Your task to perform on an android device: Go to accessibility settings Image 0: 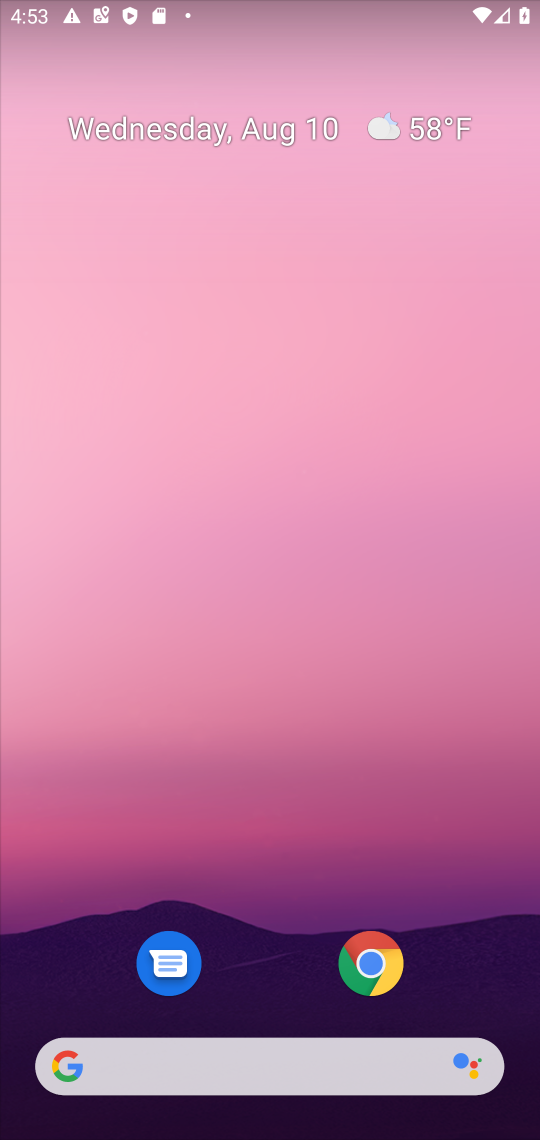
Step 0: drag from (279, 939) to (400, 168)
Your task to perform on an android device: Go to accessibility settings Image 1: 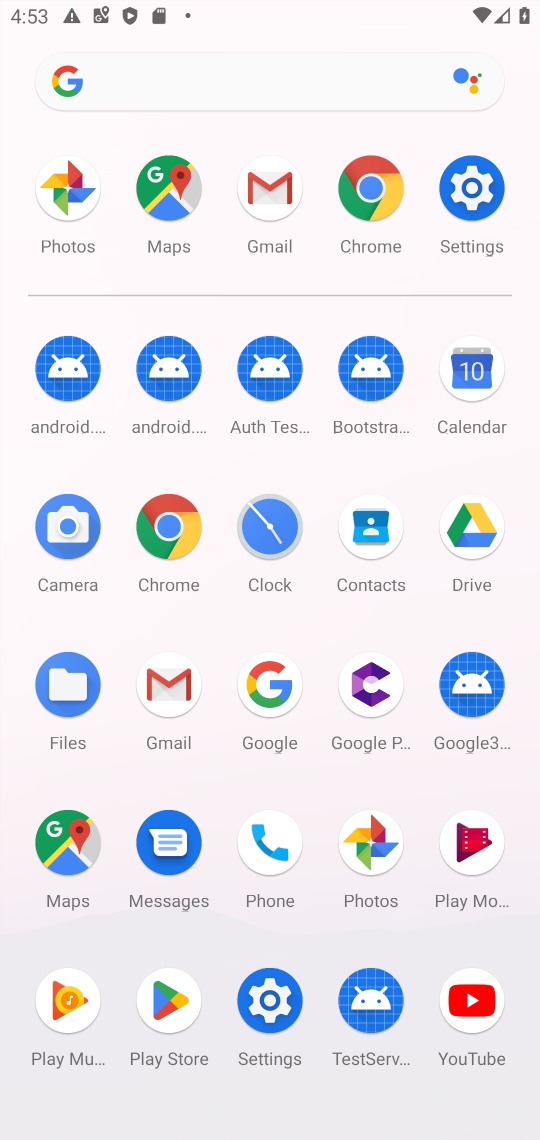
Step 1: click (248, 984)
Your task to perform on an android device: Go to accessibility settings Image 2: 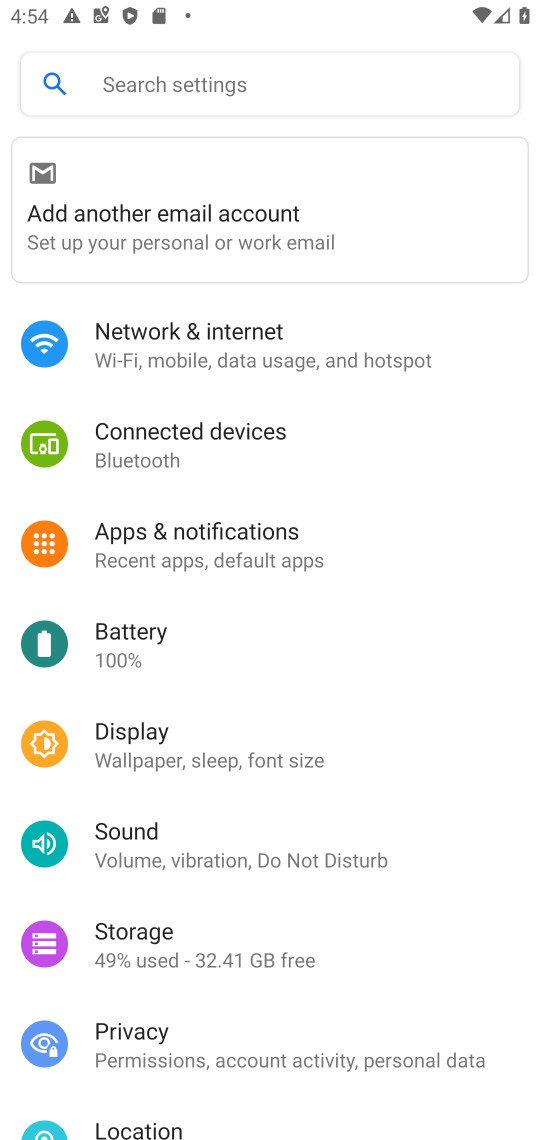
Step 2: drag from (256, 927) to (260, 401)
Your task to perform on an android device: Go to accessibility settings Image 3: 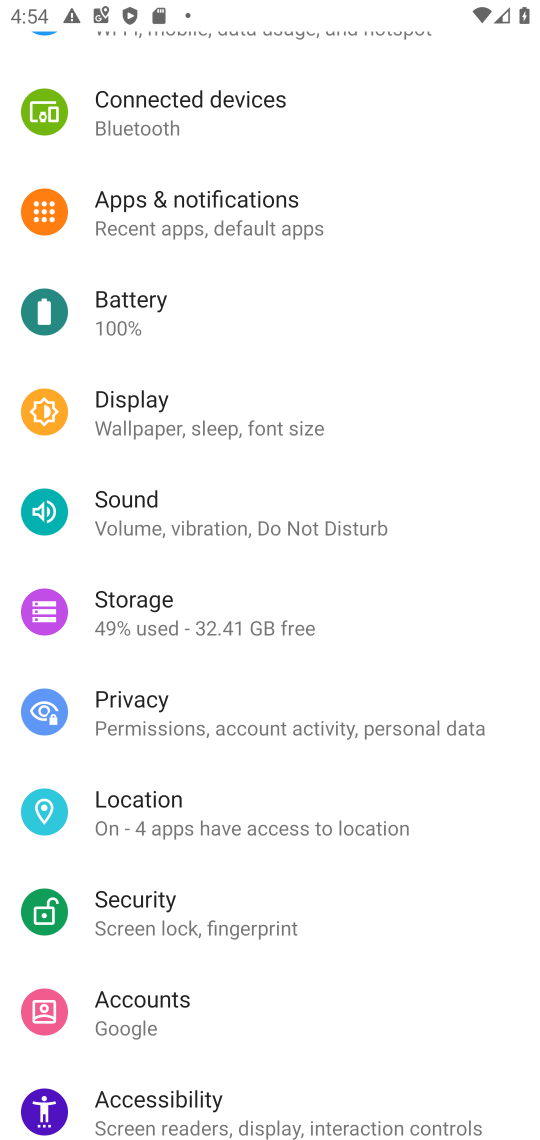
Step 3: drag from (266, 971) to (273, 445)
Your task to perform on an android device: Go to accessibility settings Image 4: 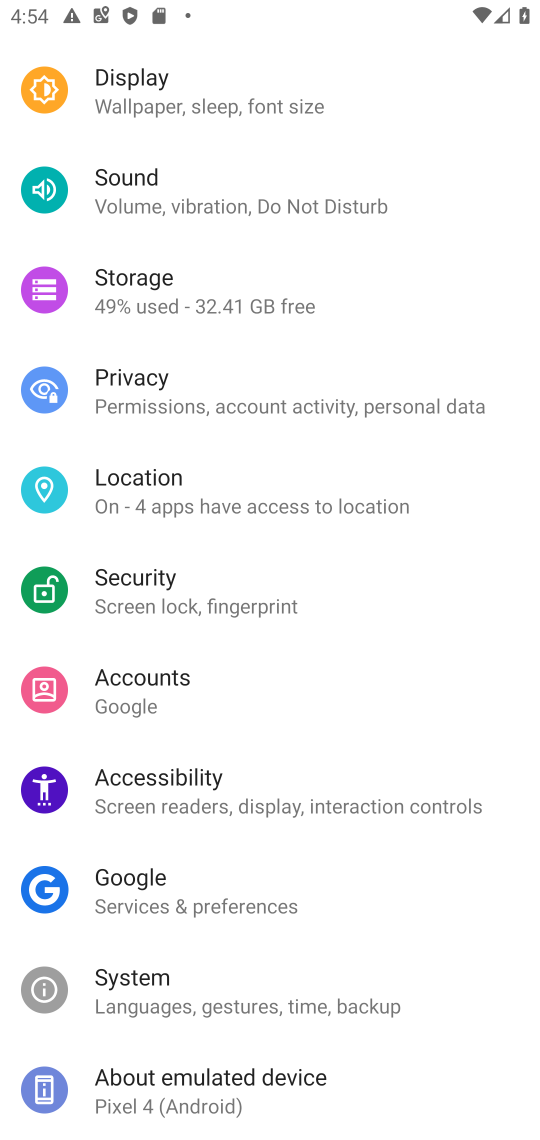
Step 4: click (196, 768)
Your task to perform on an android device: Go to accessibility settings Image 5: 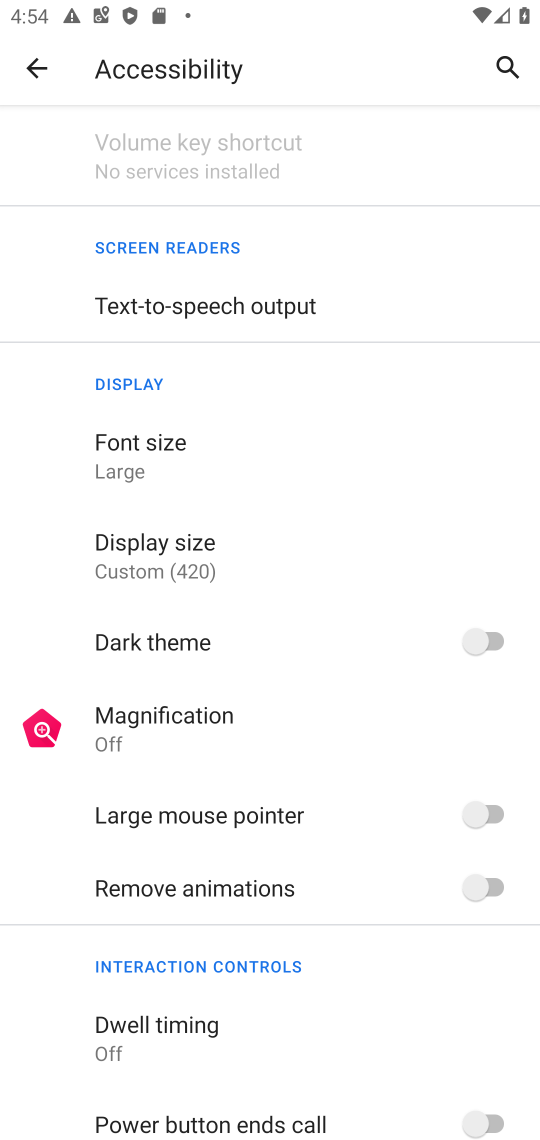
Step 5: task complete